Your task to perform on an android device: Go to ESPN.com Image 0: 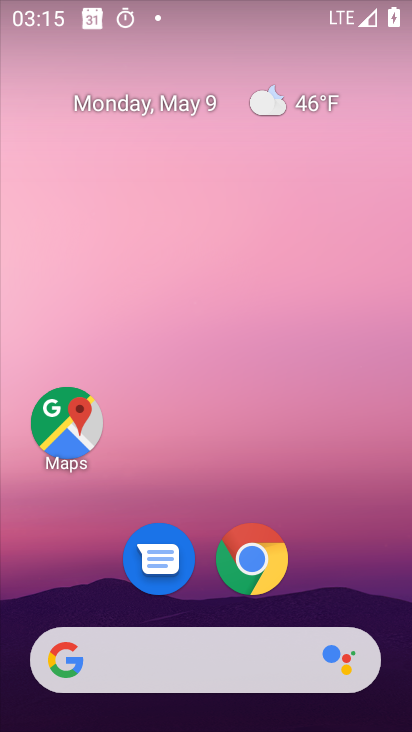
Step 0: click (270, 578)
Your task to perform on an android device: Go to ESPN.com Image 1: 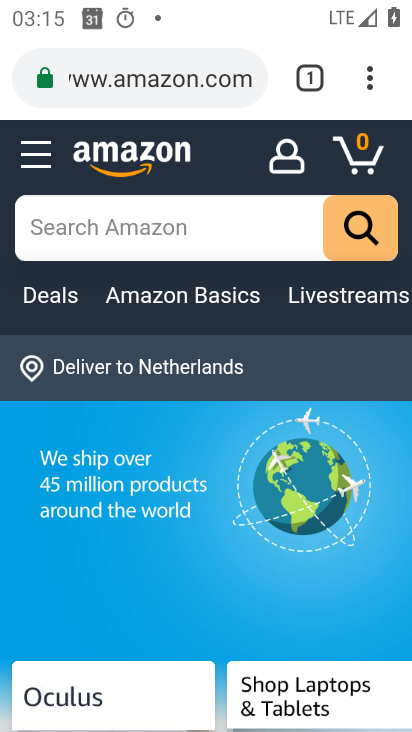
Step 1: click (139, 80)
Your task to perform on an android device: Go to ESPN.com Image 2: 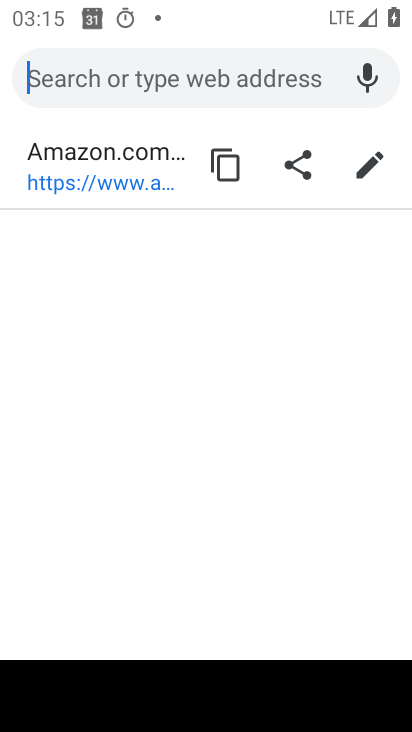
Step 2: type "ESPN.com"
Your task to perform on an android device: Go to ESPN.com Image 3: 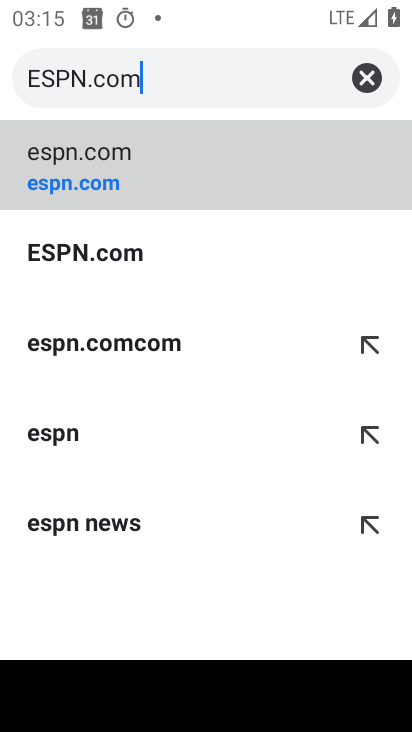
Step 3: type ""
Your task to perform on an android device: Go to ESPN.com Image 4: 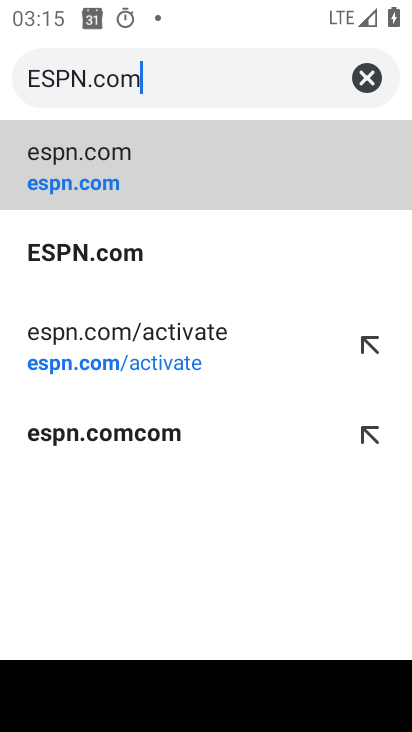
Step 4: click (105, 244)
Your task to perform on an android device: Go to ESPN.com Image 5: 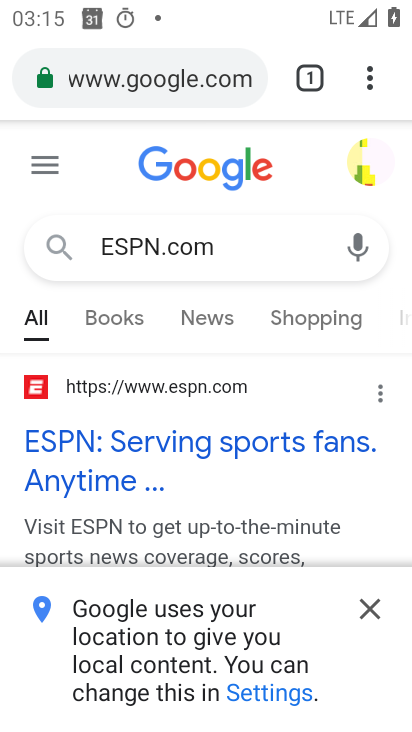
Step 5: click (136, 443)
Your task to perform on an android device: Go to ESPN.com Image 6: 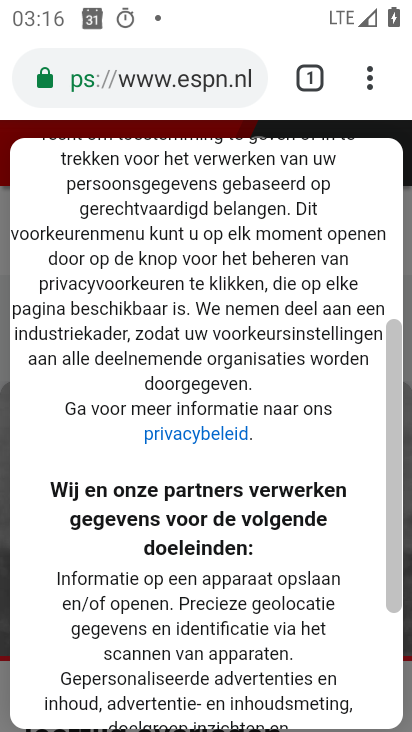
Step 6: task complete